Your task to perform on an android device: Go to Yahoo.com Image 0: 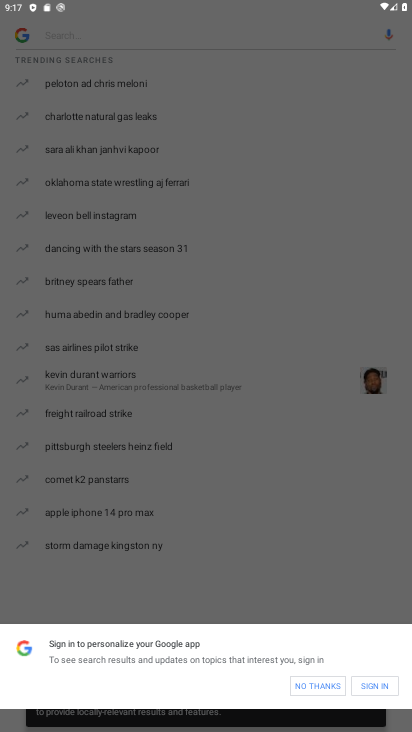
Step 0: press home button
Your task to perform on an android device: Go to Yahoo.com Image 1: 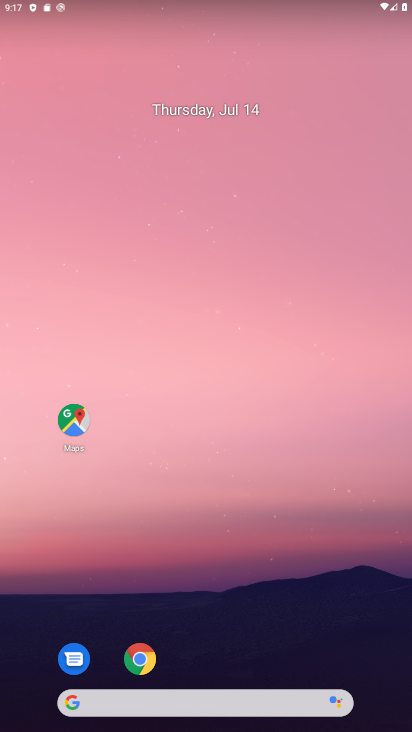
Step 1: drag from (238, 640) to (237, 198)
Your task to perform on an android device: Go to Yahoo.com Image 2: 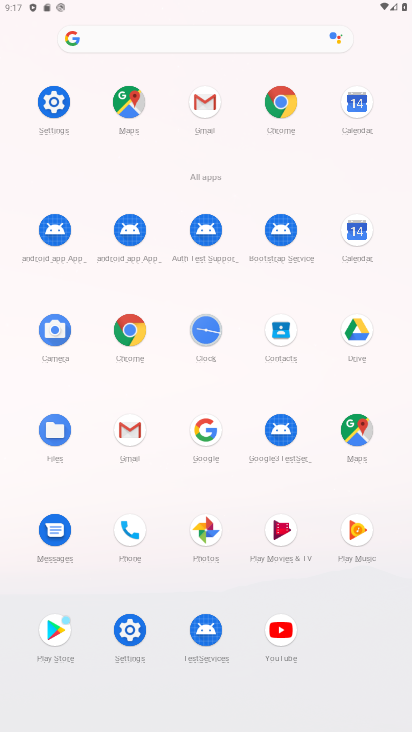
Step 2: click (128, 337)
Your task to perform on an android device: Go to Yahoo.com Image 3: 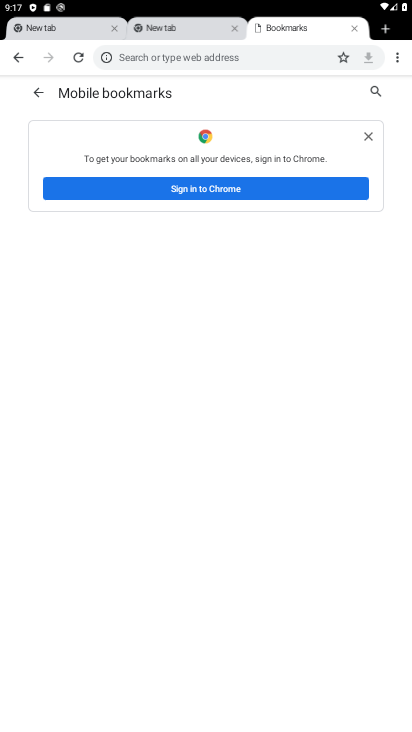
Step 3: click (354, 29)
Your task to perform on an android device: Go to Yahoo.com Image 4: 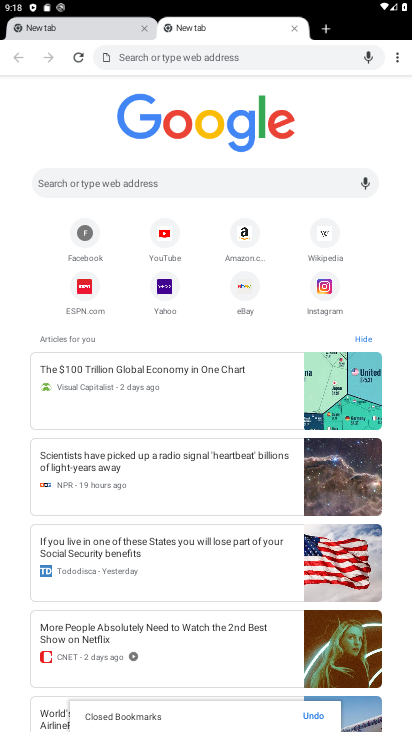
Step 4: click (334, 30)
Your task to perform on an android device: Go to Yahoo.com Image 5: 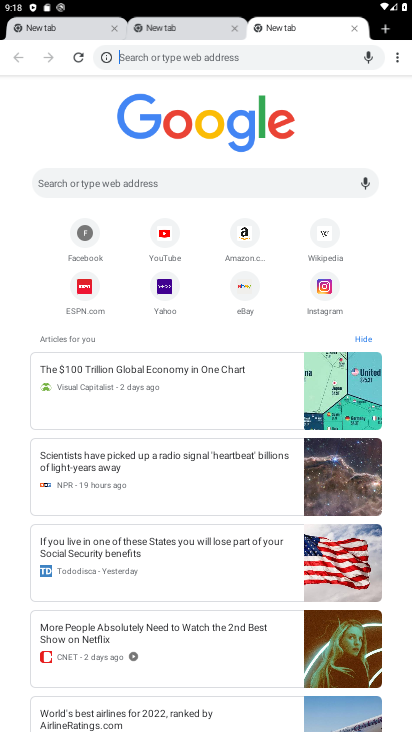
Step 5: click (167, 281)
Your task to perform on an android device: Go to Yahoo.com Image 6: 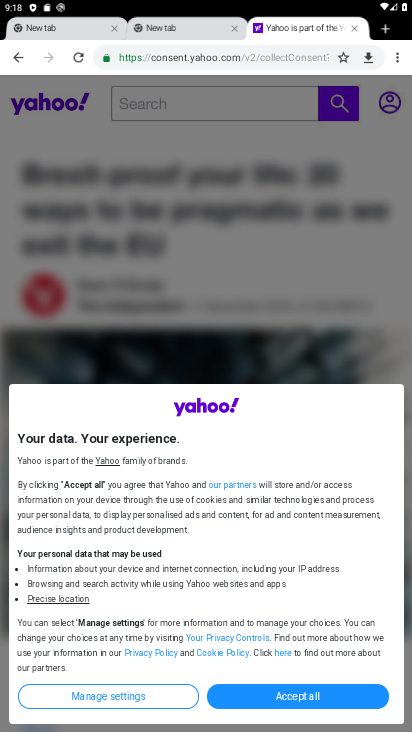
Step 6: task complete